Your task to perform on an android device: Clear the shopping cart on ebay.com. Add "duracell triple a" to the cart on ebay.com, then select checkout. Image 0: 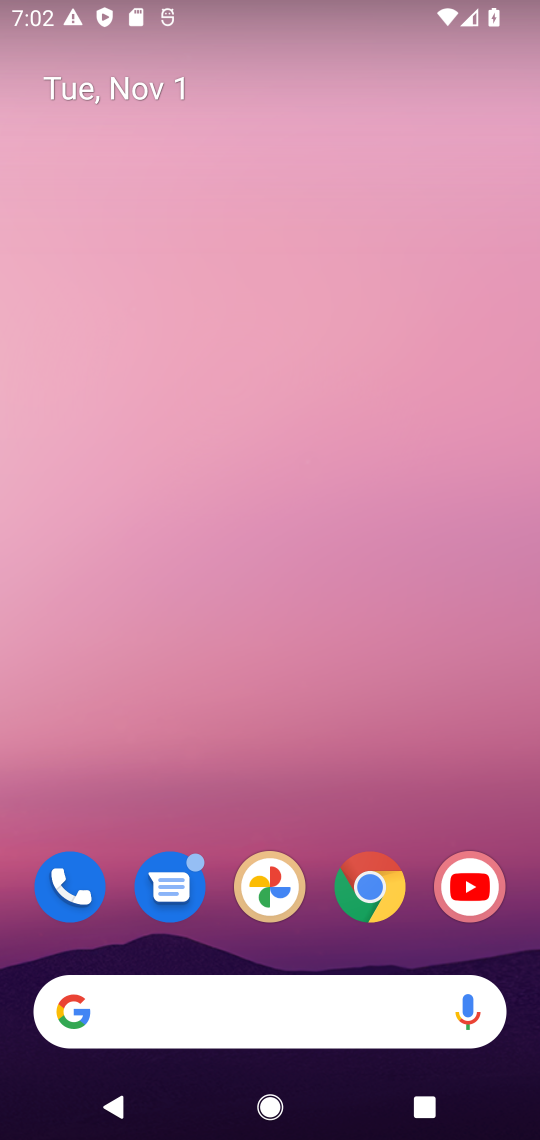
Step 0: drag from (210, 843) to (220, 280)
Your task to perform on an android device: Clear the shopping cart on ebay.com. Add "duracell triple a" to the cart on ebay.com, then select checkout. Image 1: 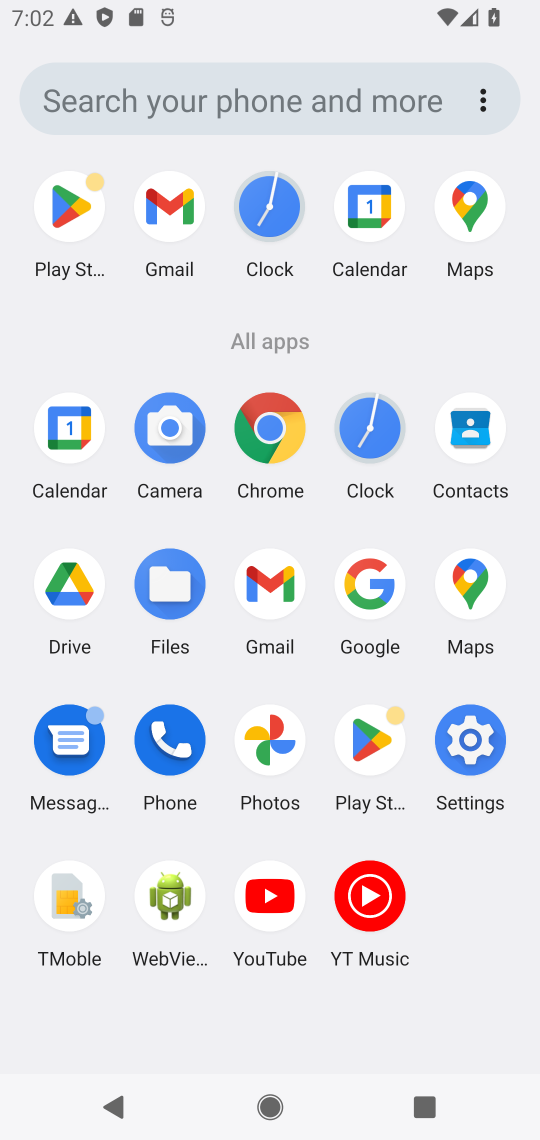
Step 1: click (374, 592)
Your task to perform on an android device: Clear the shopping cart on ebay.com. Add "duracell triple a" to the cart on ebay.com, then select checkout. Image 2: 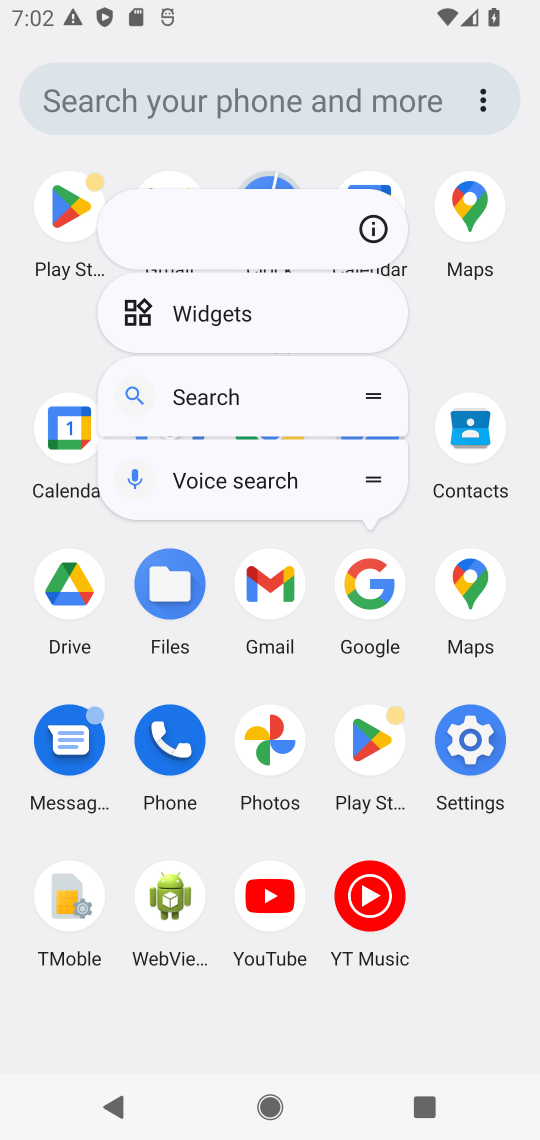
Step 2: click (358, 576)
Your task to perform on an android device: Clear the shopping cart on ebay.com. Add "duracell triple a" to the cart on ebay.com, then select checkout. Image 3: 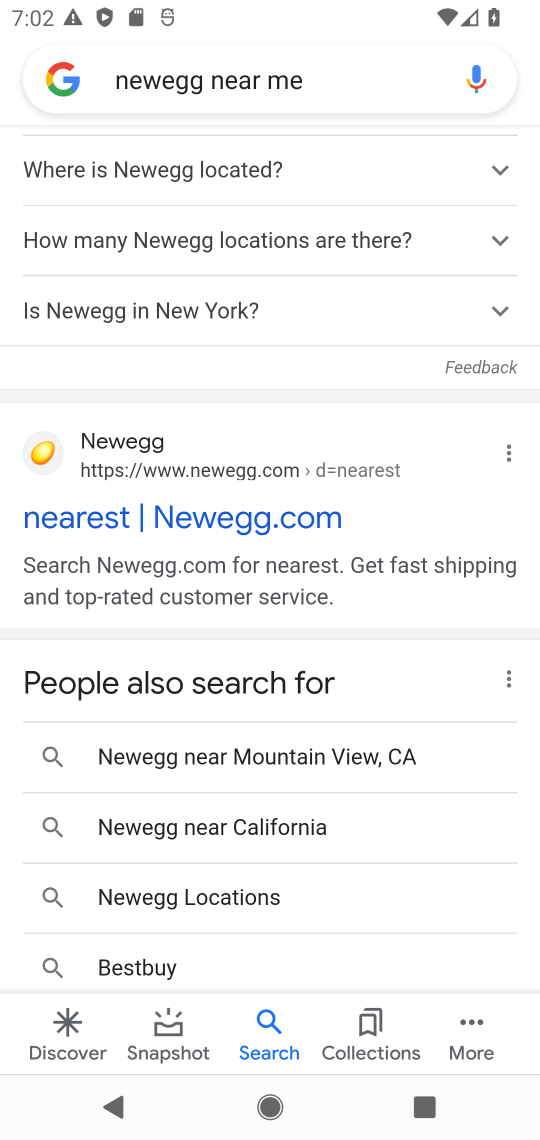
Step 3: click (279, 63)
Your task to perform on an android device: Clear the shopping cart on ebay.com. Add "duracell triple a" to the cart on ebay.com, then select checkout. Image 4: 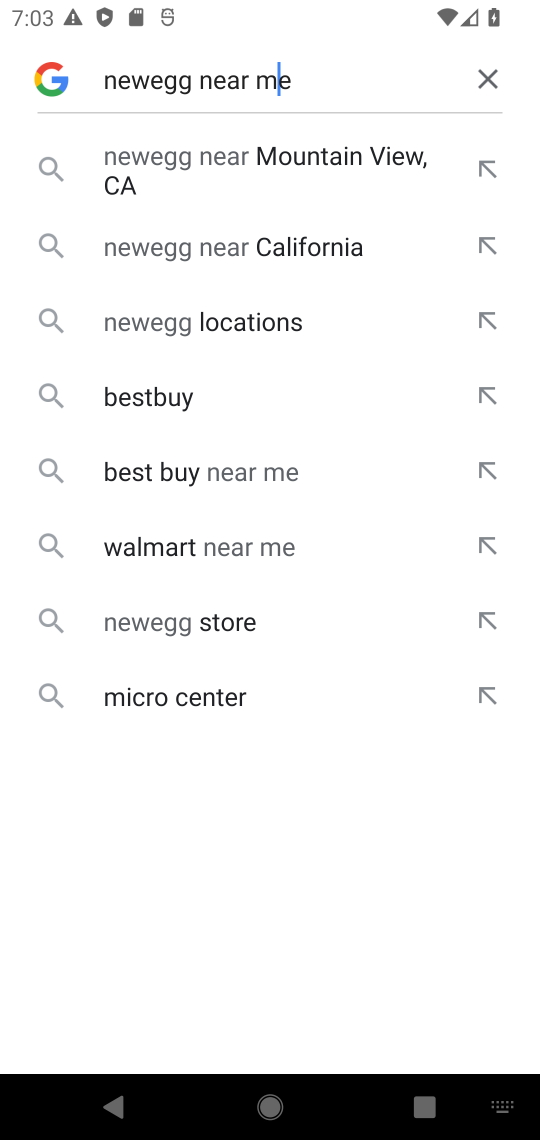
Step 4: click (490, 73)
Your task to perform on an android device: Clear the shopping cart on ebay.com. Add "duracell triple a" to the cart on ebay.com, then select checkout. Image 5: 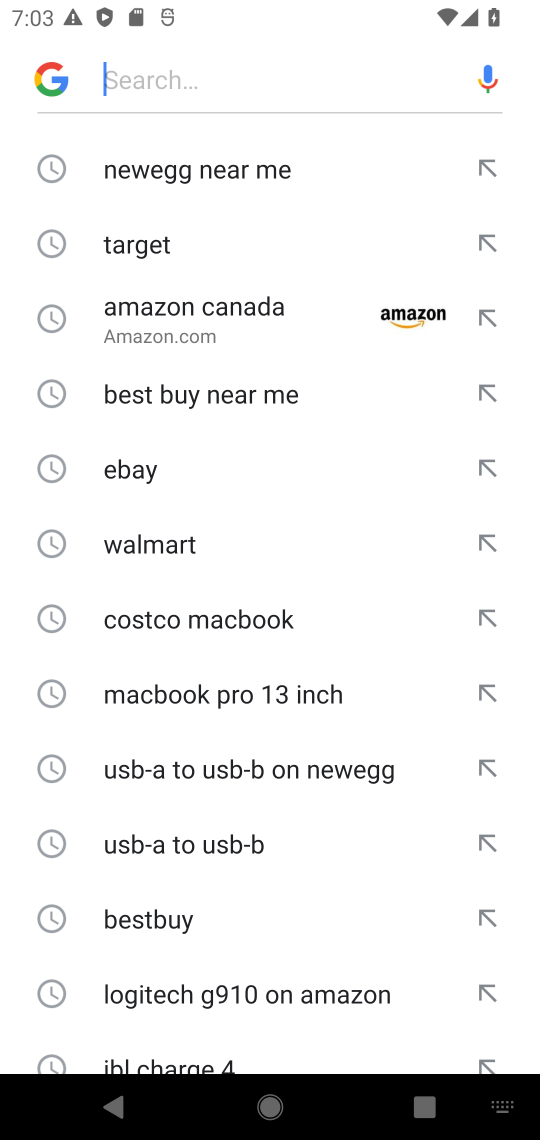
Step 5: click (214, 50)
Your task to perform on an android device: Clear the shopping cart on ebay.com. Add "duracell triple a" to the cart on ebay.com, then select checkout. Image 6: 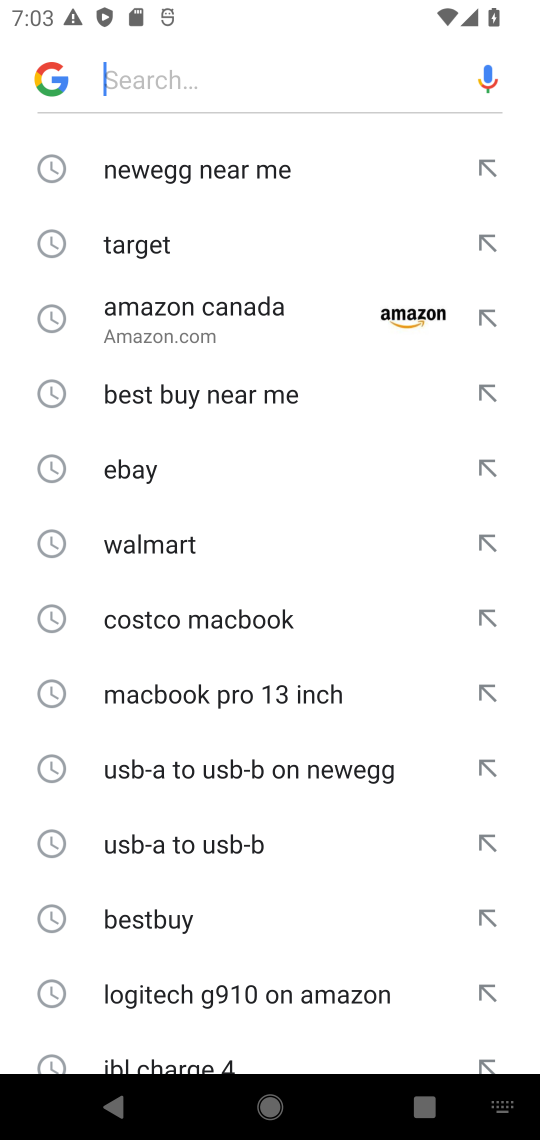
Step 6: type "ebay "
Your task to perform on an android device: Clear the shopping cart on ebay.com. Add "duracell triple a" to the cart on ebay.com, then select checkout. Image 7: 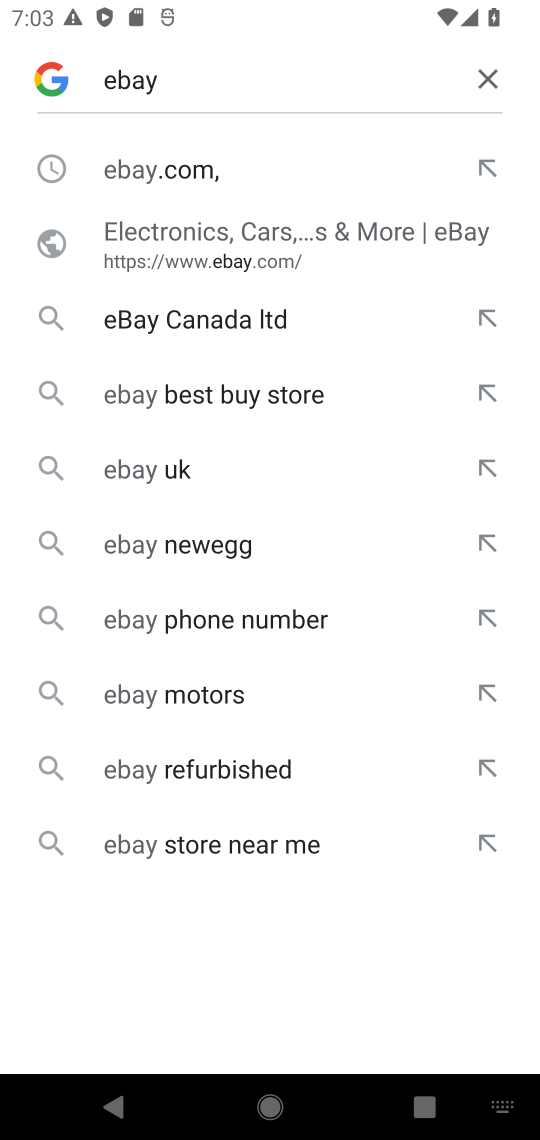
Step 7: click (210, 159)
Your task to perform on an android device: Clear the shopping cart on ebay.com. Add "duracell triple a" to the cart on ebay.com, then select checkout. Image 8: 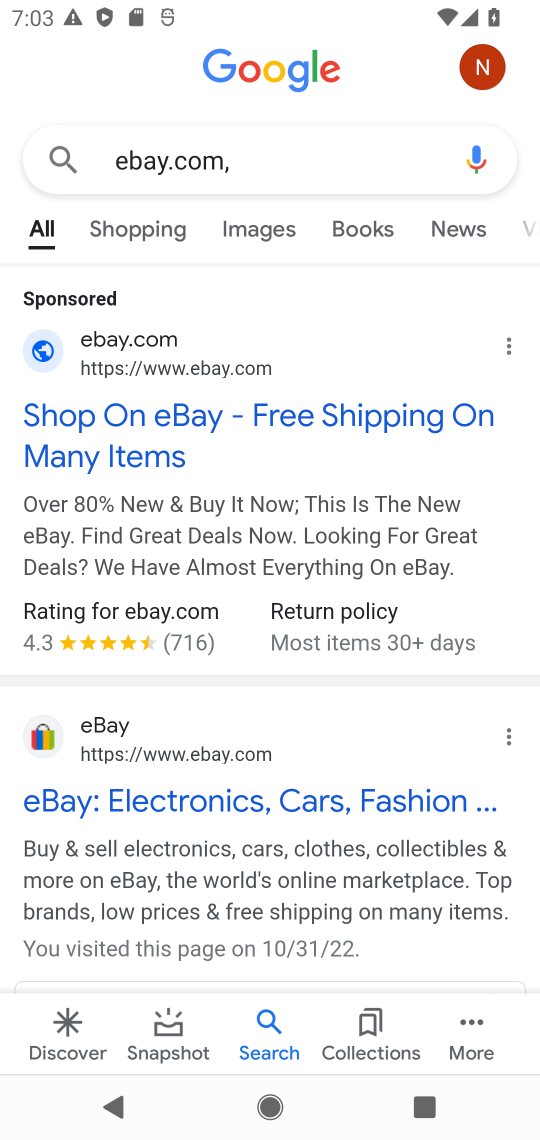
Step 8: click (109, 431)
Your task to perform on an android device: Clear the shopping cart on ebay.com. Add "duracell triple a" to the cart on ebay.com, then select checkout. Image 9: 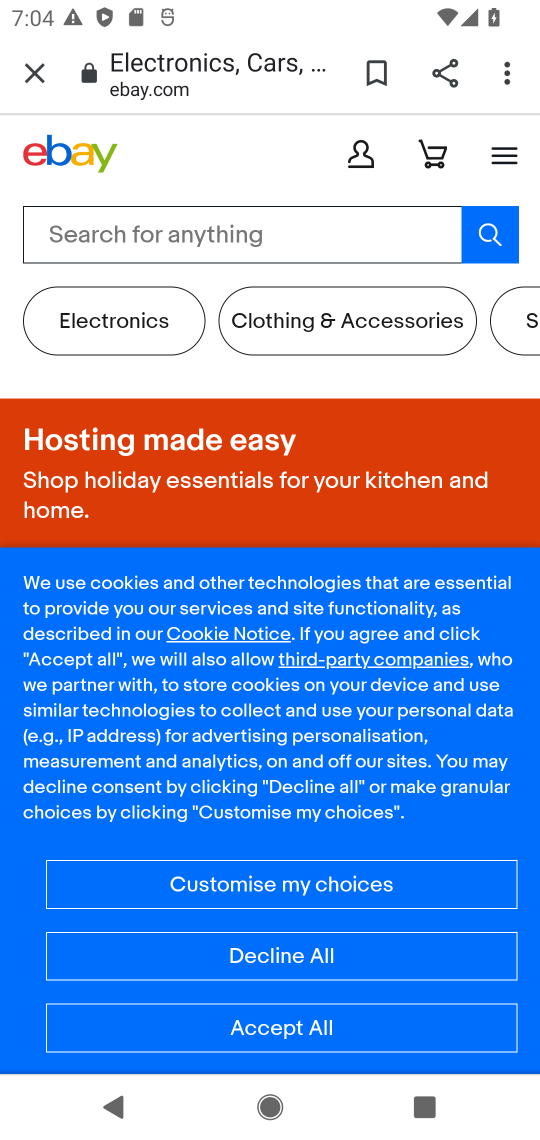
Step 9: click (302, 1032)
Your task to perform on an android device: Clear the shopping cart on ebay.com. Add "duracell triple a" to the cart on ebay.com, then select checkout. Image 10: 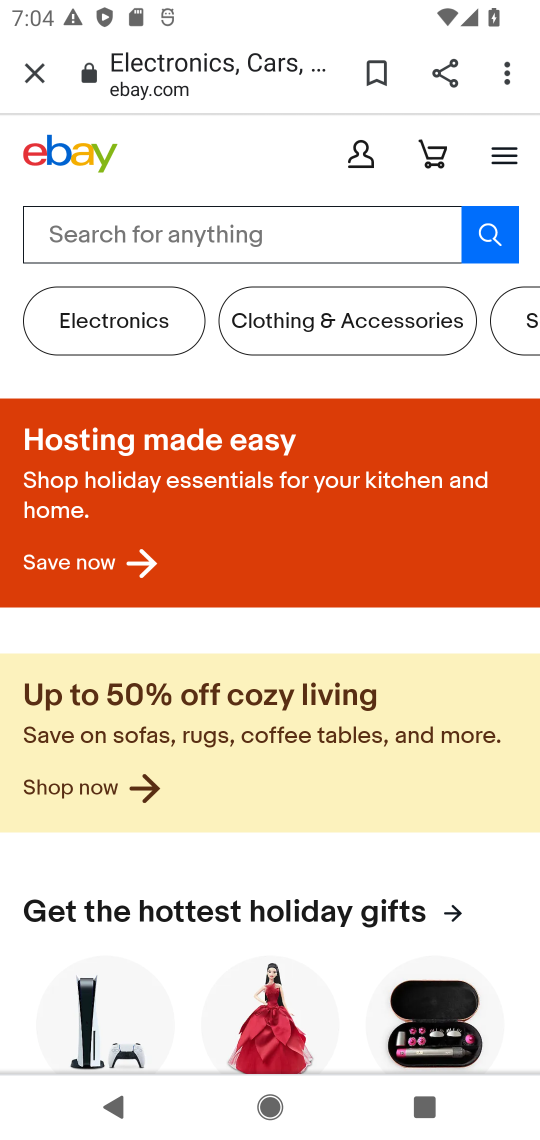
Step 10: click (302, 231)
Your task to perform on an android device: Clear the shopping cart on ebay.com. Add "duracell triple a" to the cart on ebay.com, then select checkout. Image 11: 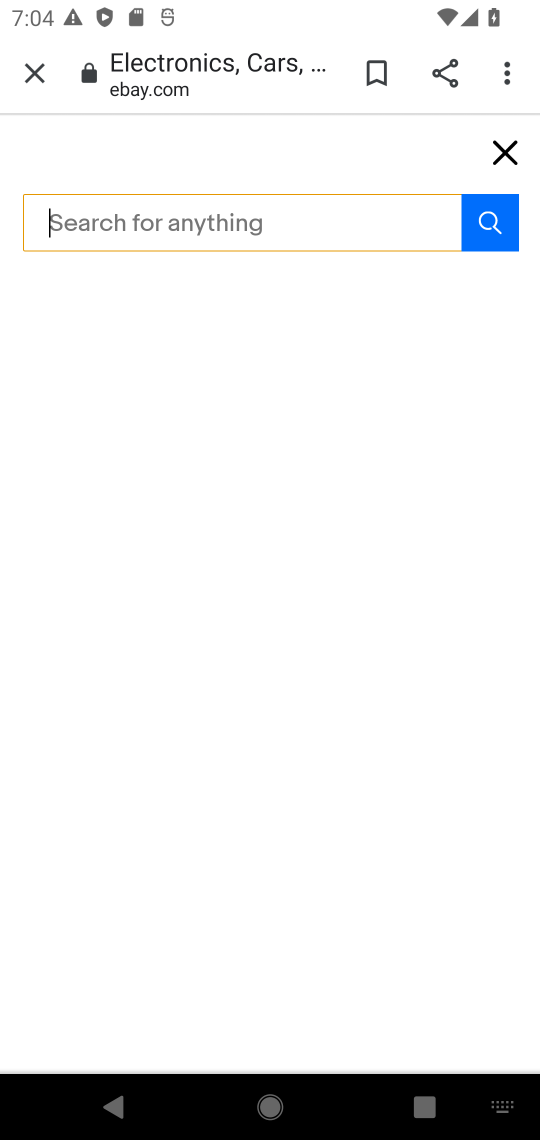
Step 11: type "duracell triple "
Your task to perform on an android device: Clear the shopping cart on ebay.com. Add "duracell triple a" to the cart on ebay.com, then select checkout. Image 12: 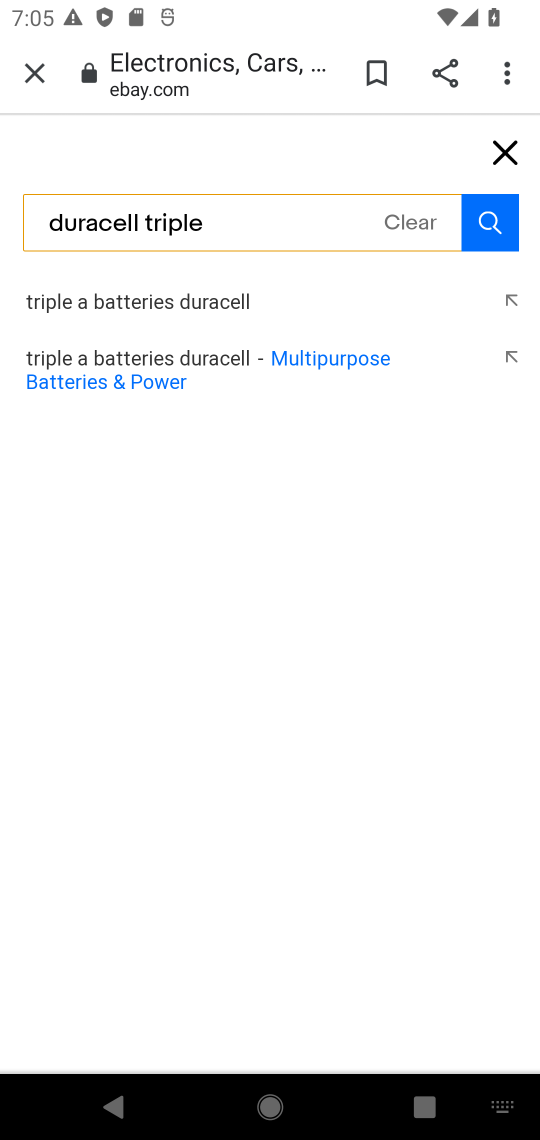
Step 12: click (488, 222)
Your task to perform on an android device: Clear the shopping cart on ebay.com. Add "duracell triple a" to the cart on ebay.com, then select checkout. Image 13: 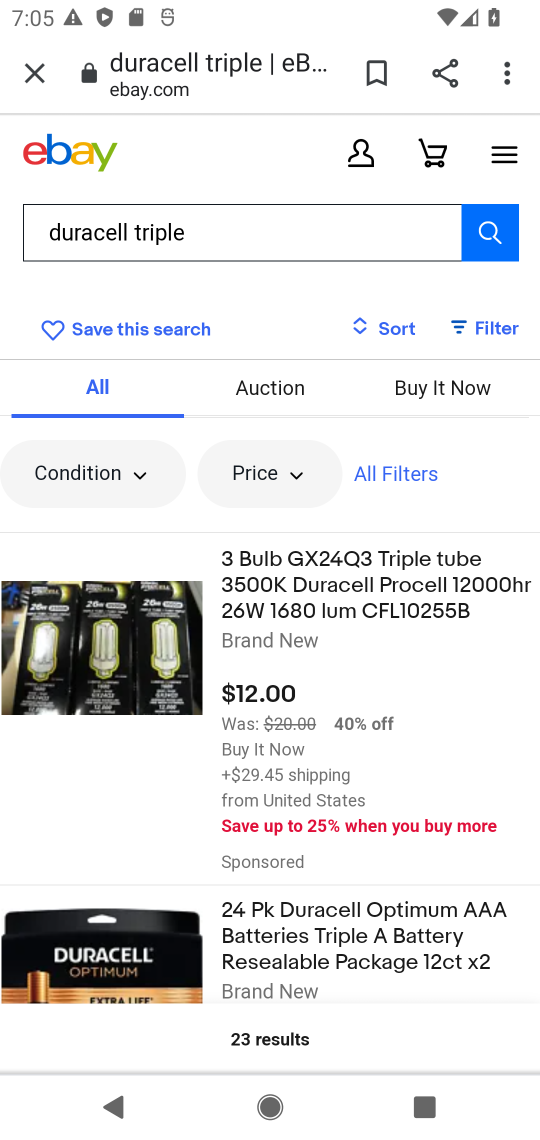
Step 13: click (297, 592)
Your task to perform on an android device: Clear the shopping cart on ebay.com. Add "duracell triple a" to the cart on ebay.com, then select checkout. Image 14: 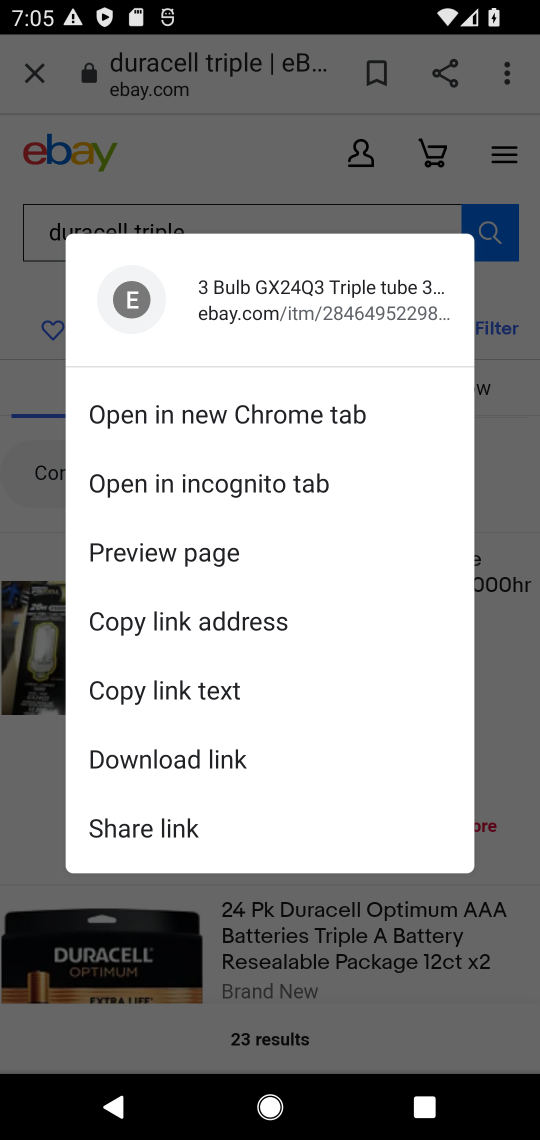
Step 14: click (511, 526)
Your task to perform on an android device: Clear the shopping cart on ebay.com. Add "duracell triple a" to the cart on ebay.com, then select checkout. Image 15: 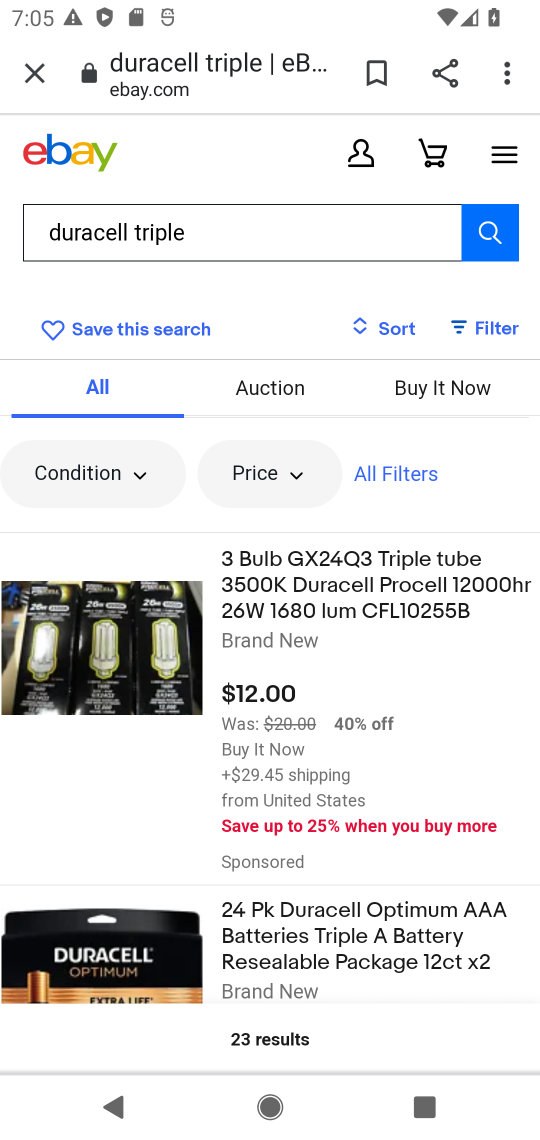
Step 15: click (135, 962)
Your task to perform on an android device: Clear the shopping cart on ebay.com. Add "duracell triple a" to the cart on ebay.com, then select checkout. Image 16: 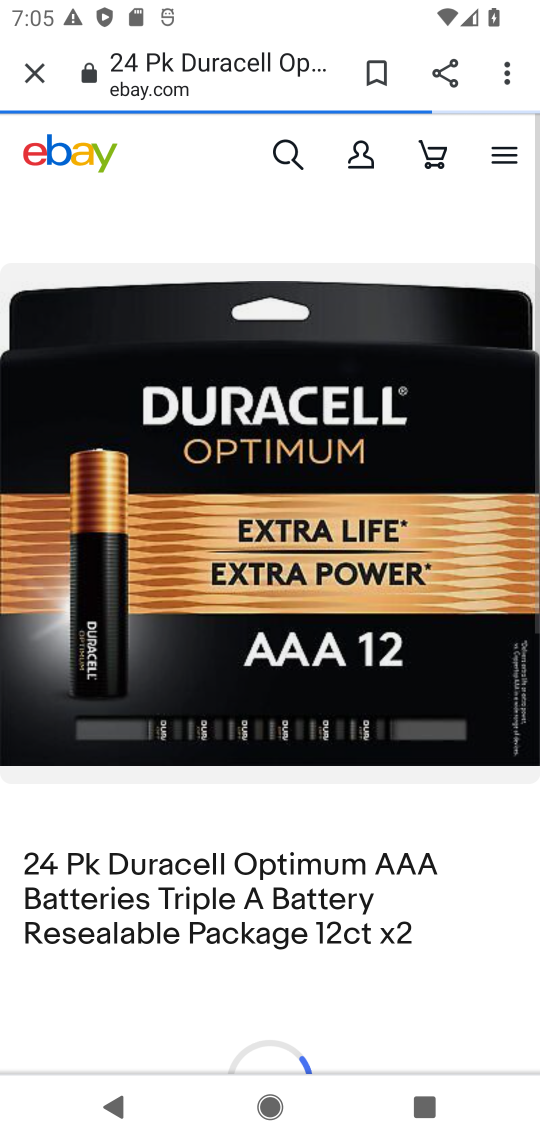
Step 16: drag from (247, 772) to (293, 313)
Your task to perform on an android device: Clear the shopping cart on ebay.com. Add "duracell triple a" to the cart on ebay.com, then select checkout. Image 17: 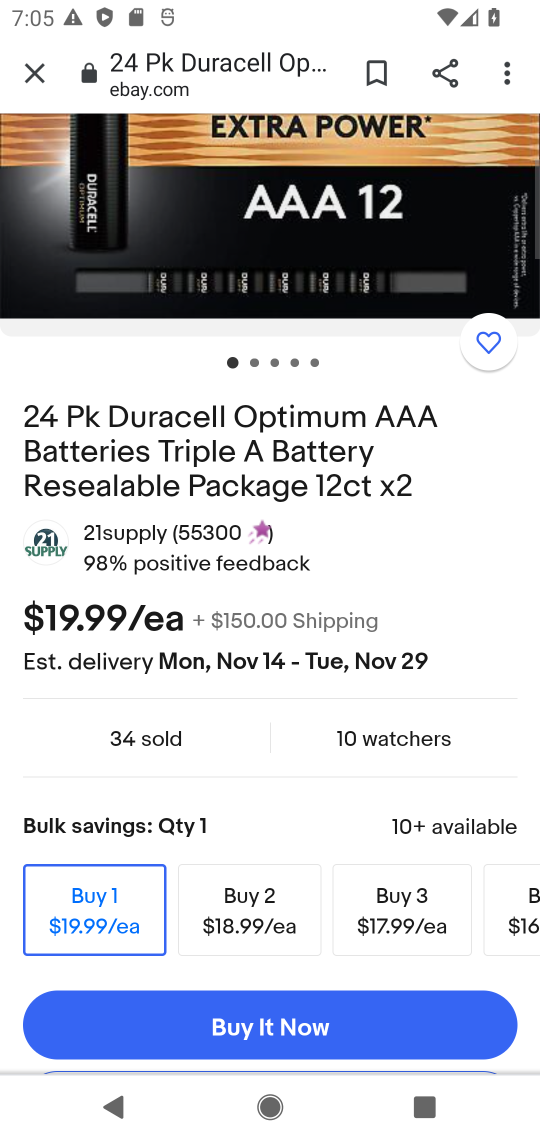
Step 17: drag from (328, 813) to (393, 375)
Your task to perform on an android device: Clear the shopping cart on ebay.com. Add "duracell triple a" to the cart on ebay.com, then select checkout. Image 18: 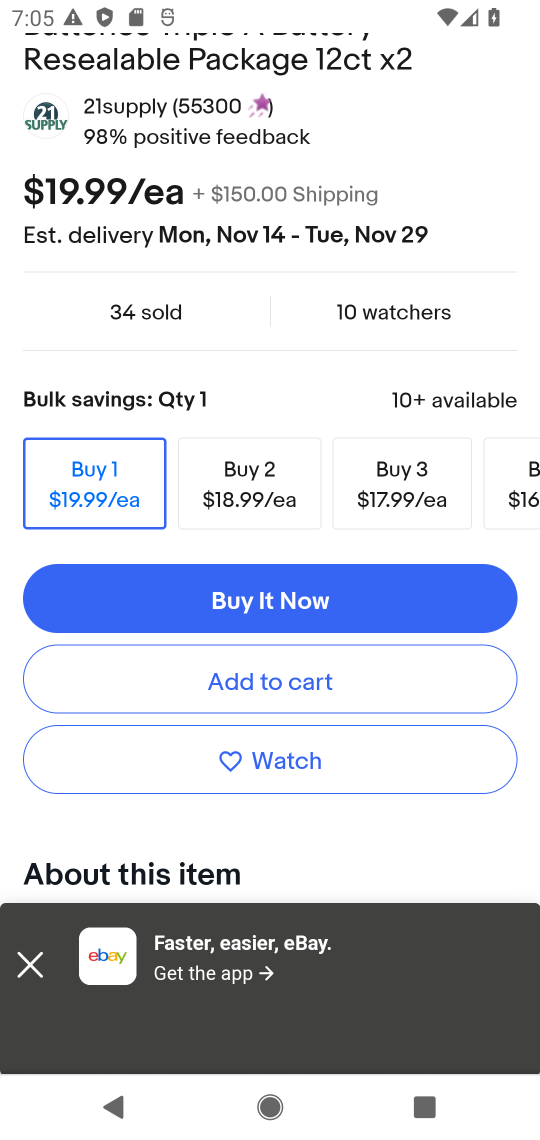
Step 18: click (290, 684)
Your task to perform on an android device: Clear the shopping cart on ebay.com. Add "duracell triple a" to the cart on ebay.com, then select checkout. Image 19: 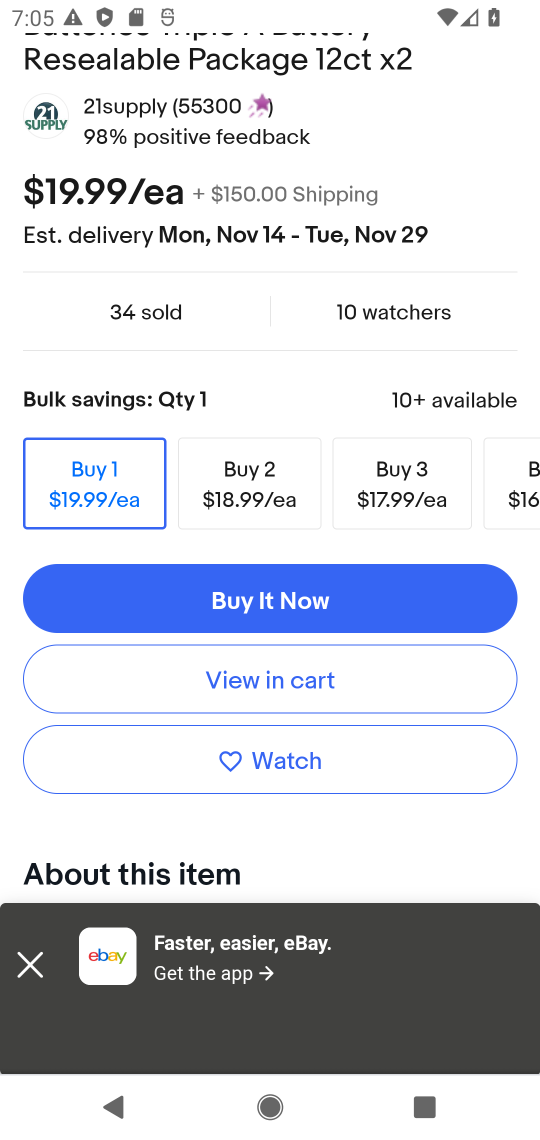
Step 19: task complete